Your task to perform on an android device: Go to ESPN.com Image 0: 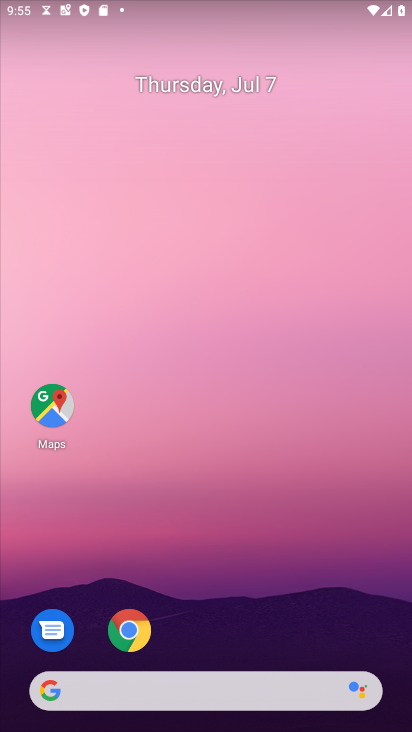
Step 0: click (123, 629)
Your task to perform on an android device: Go to ESPN.com Image 1: 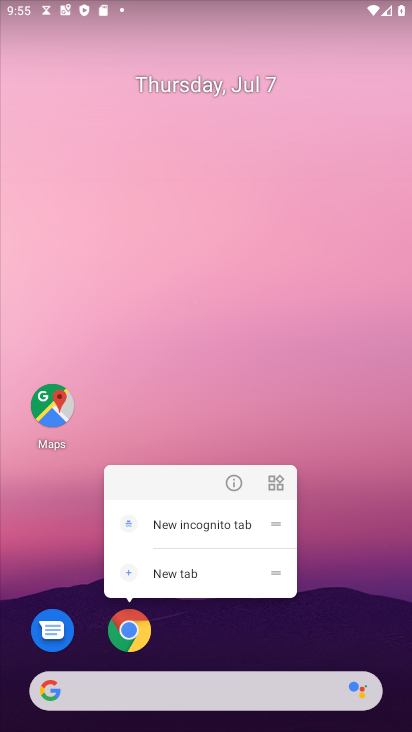
Step 1: click (123, 629)
Your task to perform on an android device: Go to ESPN.com Image 2: 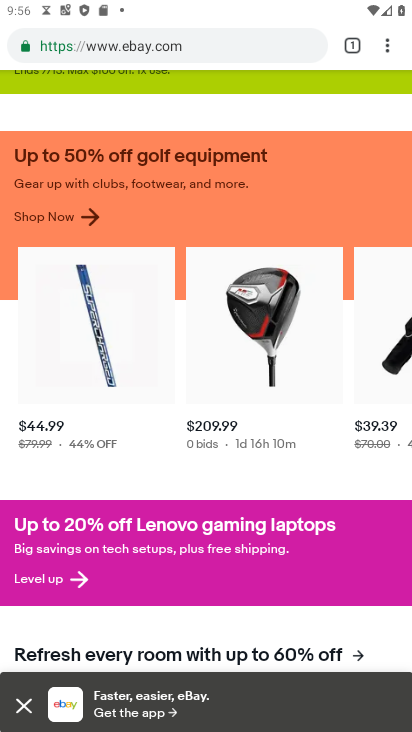
Step 2: click (202, 52)
Your task to perform on an android device: Go to ESPN.com Image 3: 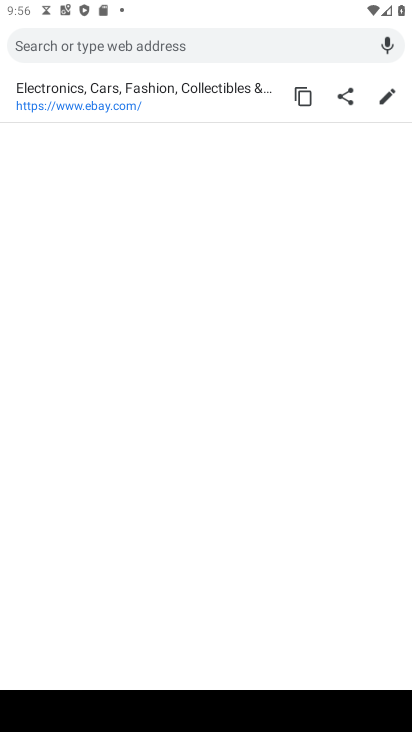
Step 3: click (270, 233)
Your task to perform on an android device: Go to ESPN.com Image 4: 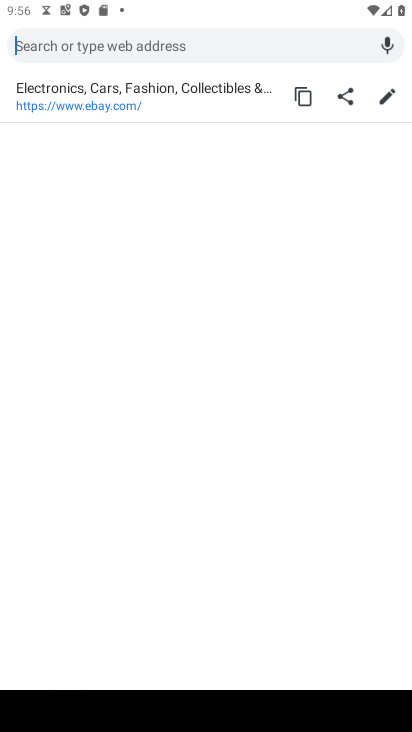
Step 4: click (285, 46)
Your task to perform on an android device: Go to ESPN.com Image 5: 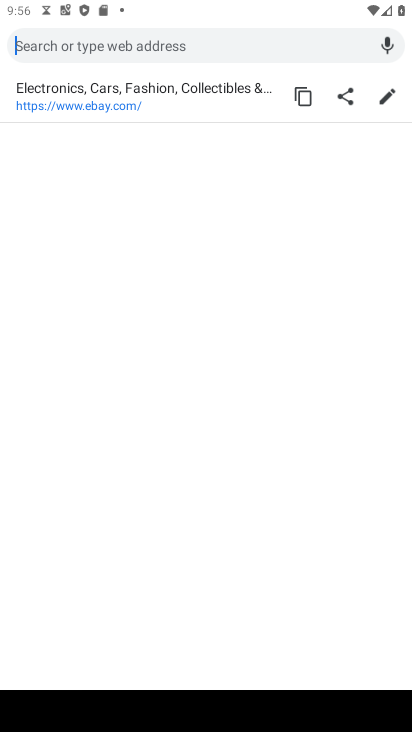
Step 5: press back button
Your task to perform on an android device: Go to ESPN.com Image 6: 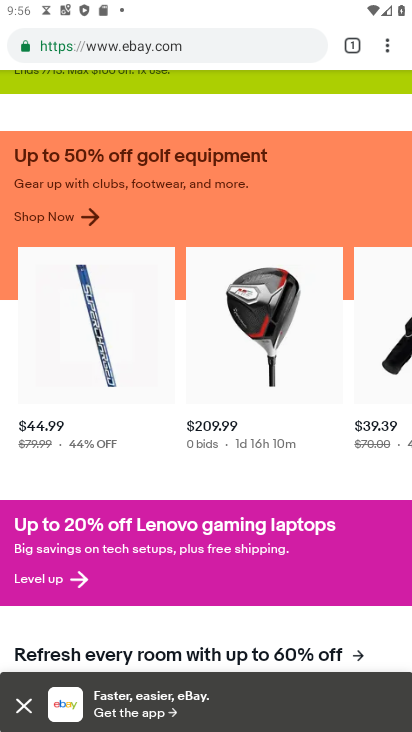
Step 6: click (343, 47)
Your task to perform on an android device: Go to ESPN.com Image 7: 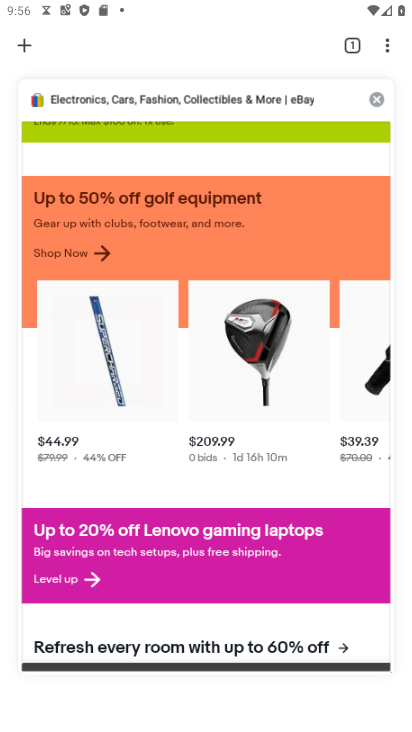
Step 7: click (30, 41)
Your task to perform on an android device: Go to ESPN.com Image 8: 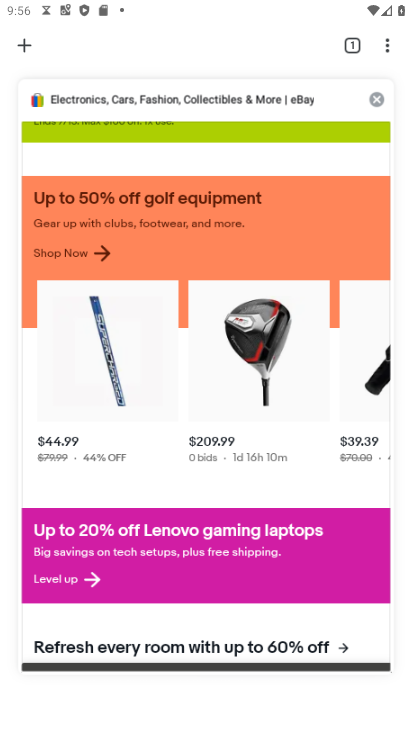
Step 8: click (22, 43)
Your task to perform on an android device: Go to ESPN.com Image 9: 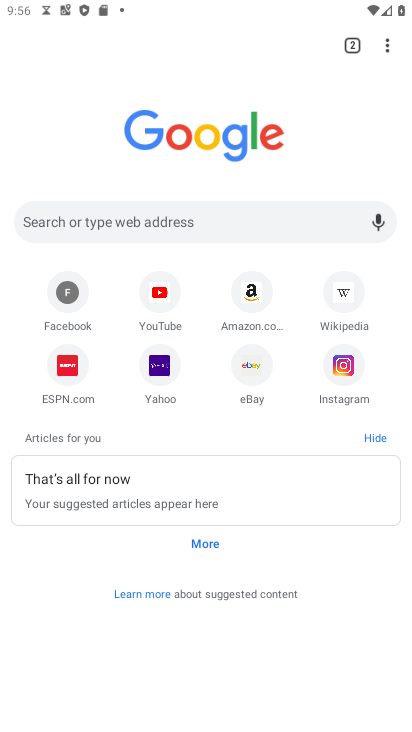
Step 9: click (79, 370)
Your task to perform on an android device: Go to ESPN.com Image 10: 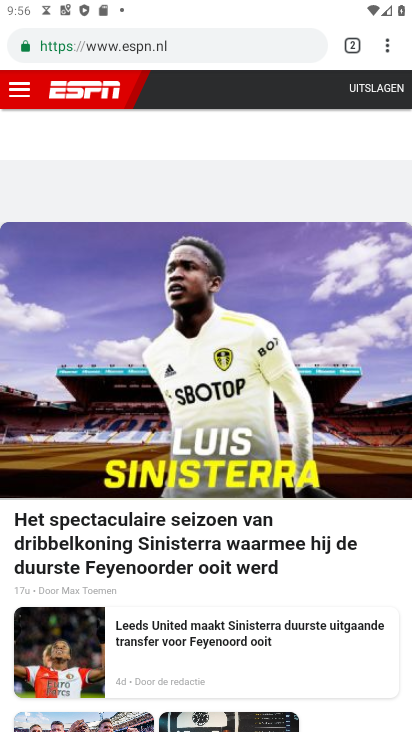
Step 10: task complete